Your task to perform on an android device: Set the phone to "Do not disturb". Image 0: 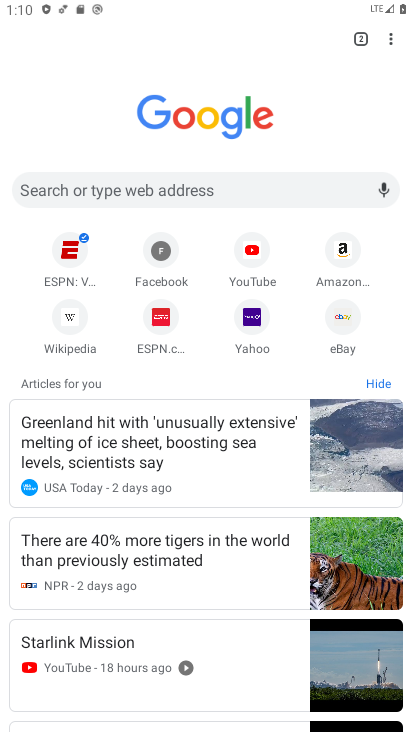
Step 0: press home button
Your task to perform on an android device: Set the phone to "Do not disturb". Image 1: 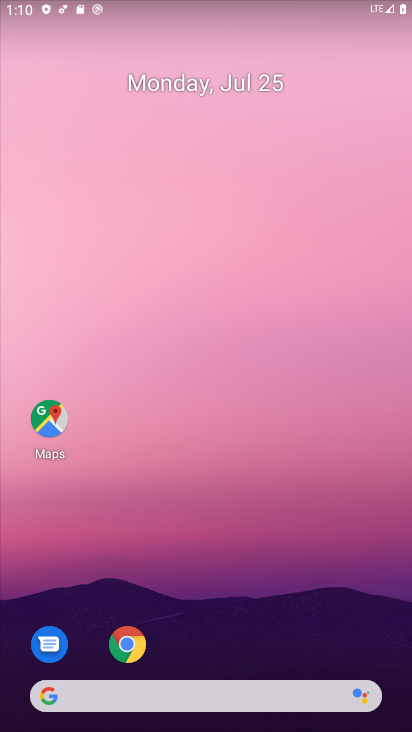
Step 1: drag from (238, 726) to (222, 133)
Your task to perform on an android device: Set the phone to "Do not disturb". Image 2: 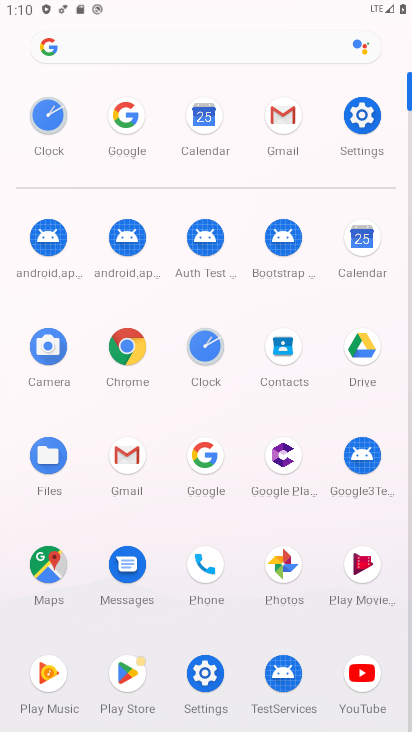
Step 2: click (350, 110)
Your task to perform on an android device: Set the phone to "Do not disturb". Image 3: 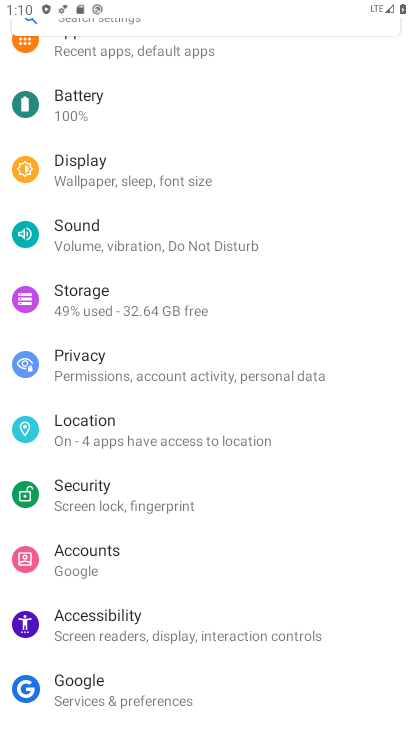
Step 3: click (195, 248)
Your task to perform on an android device: Set the phone to "Do not disturb". Image 4: 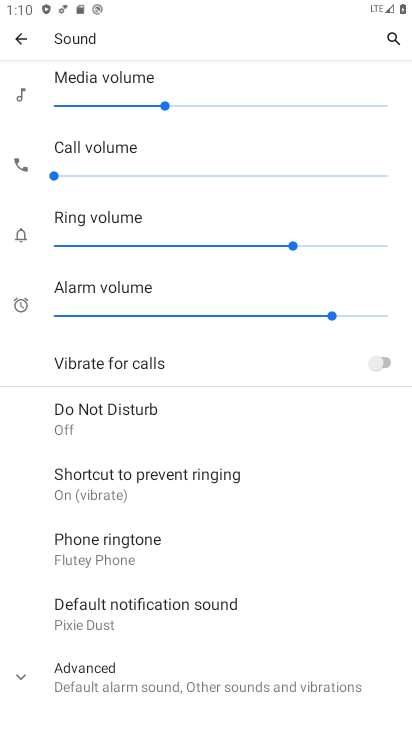
Step 4: click (86, 411)
Your task to perform on an android device: Set the phone to "Do not disturb". Image 5: 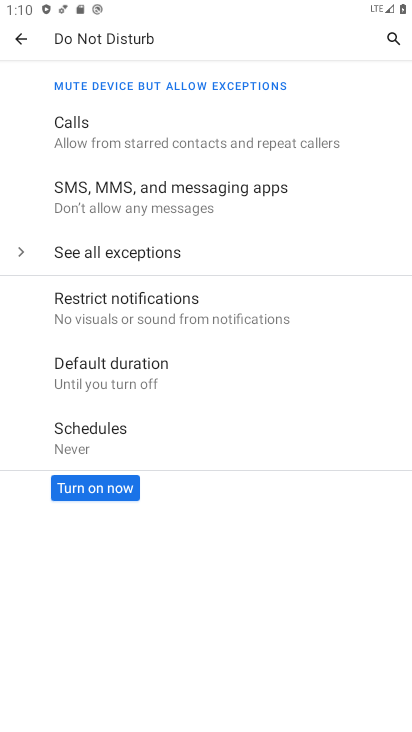
Step 5: click (92, 489)
Your task to perform on an android device: Set the phone to "Do not disturb". Image 6: 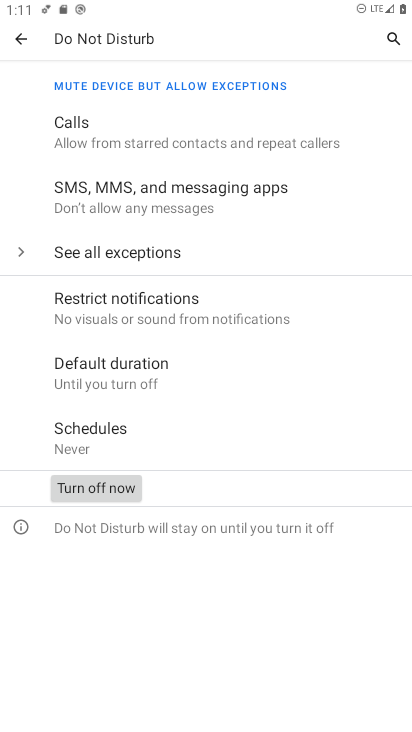
Step 6: task complete